Your task to perform on an android device: Go to Google Image 0: 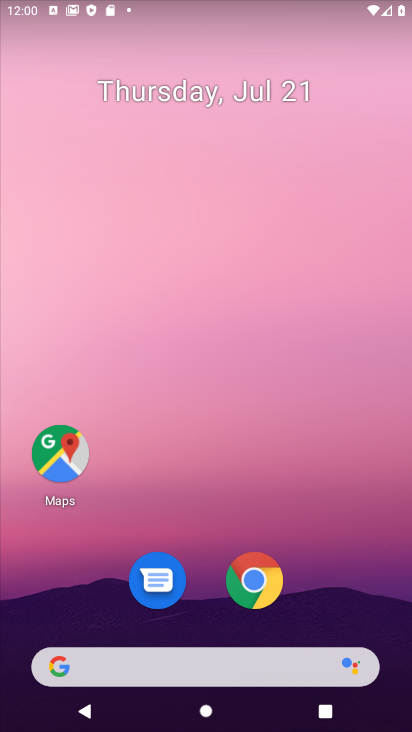
Step 0: drag from (320, 588) to (294, 84)
Your task to perform on an android device: Go to Google Image 1: 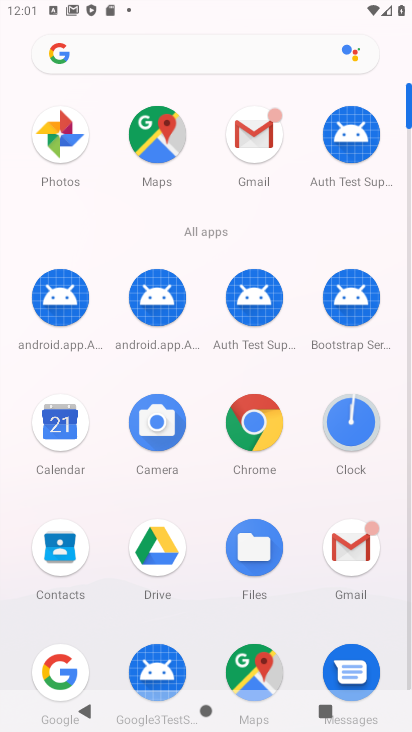
Step 1: drag from (228, 287) to (217, 119)
Your task to perform on an android device: Go to Google Image 2: 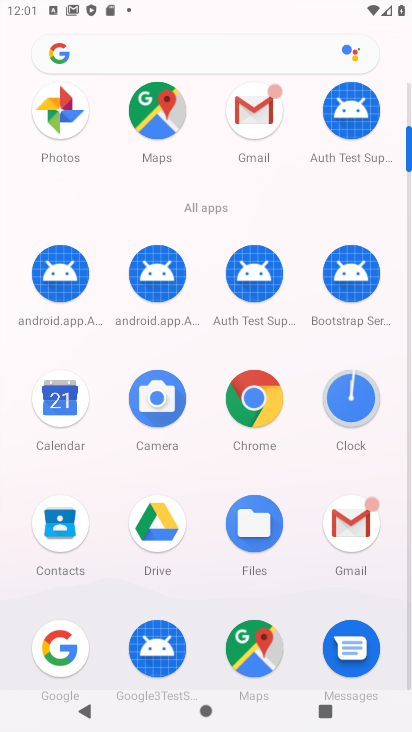
Step 2: click (62, 653)
Your task to perform on an android device: Go to Google Image 3: 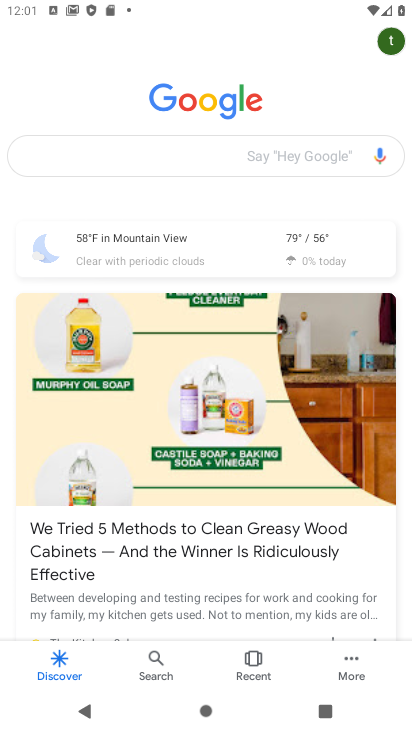
Step 3: task complete